Your task to perform on an android device: visit the assistant section in the google photos Image 0: 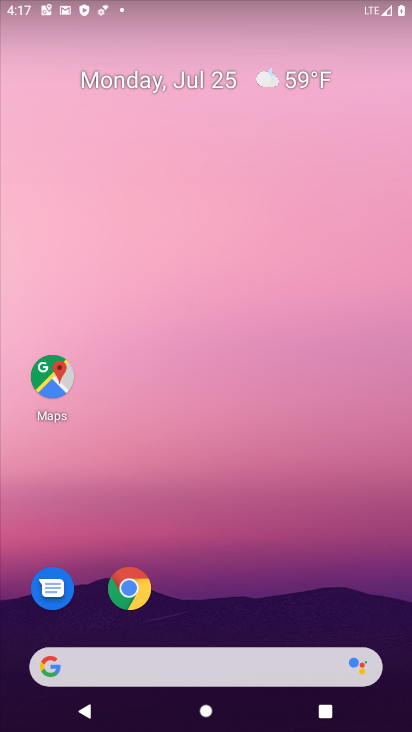
Step 0: drag from (305, 563) to (384, 5)
Your task to perform on an android device: visit the assistant section in the google photos Image 1: 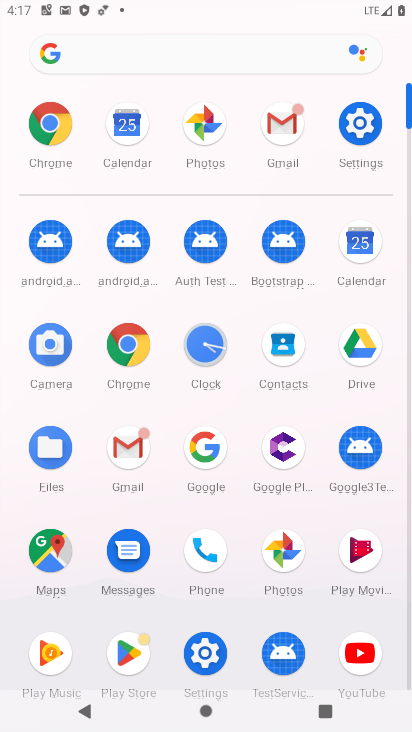
Step 1: click (288, 545)
Your task to perform on an android device: visit the assistant section in the google photos Image 2: 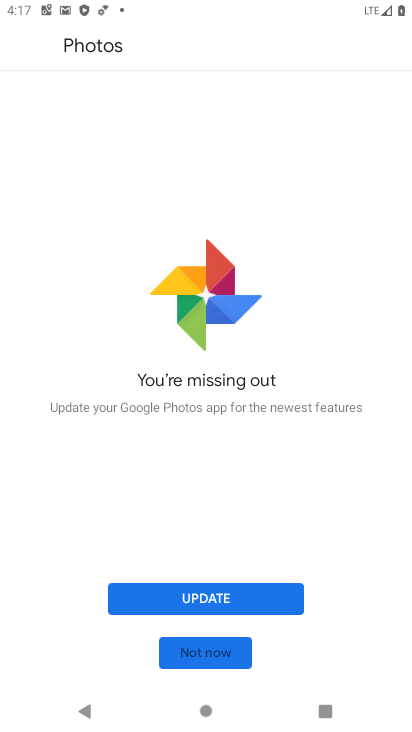
Step 2: click (249, 601)
Your task to perform on an android device: visit the assistant section in the google photos Image 3: 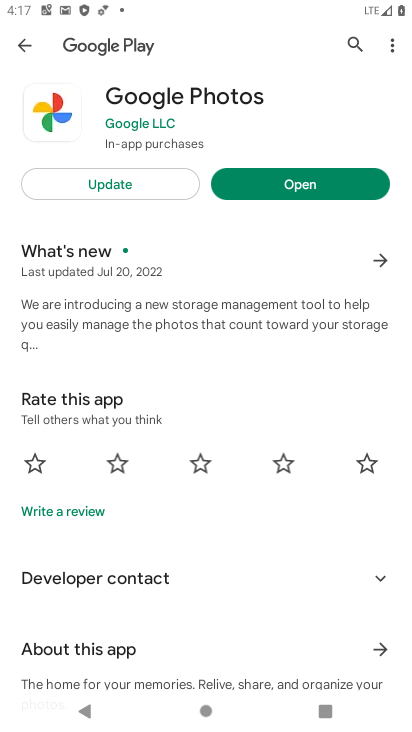
Step 3: click (126, 183)
Your task to perform on an android device: visit the assistant section in the google photos Image 4: 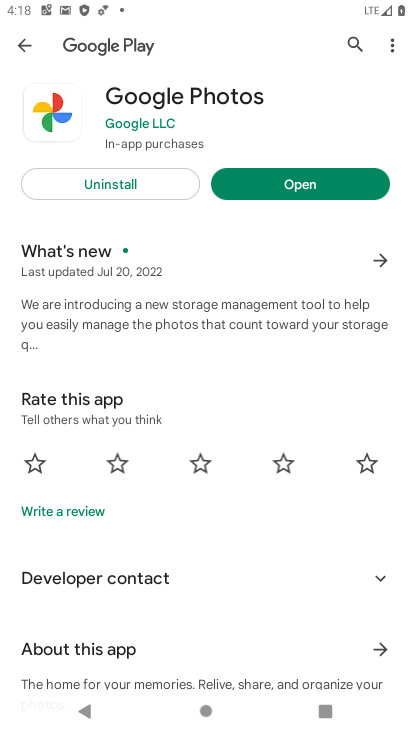
Step 4: click (345, 180)
Your task to perform on an android device: visit the assistant section in the google photos Image 5: 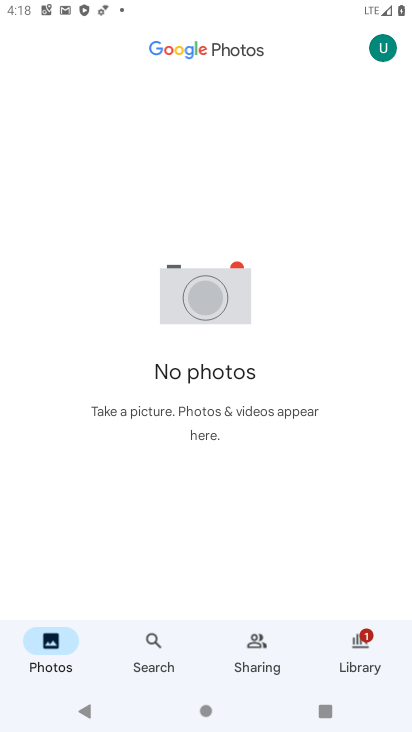
Step 5: task complete